Your task to perform on an android device: change the clock display to digital Image 0: 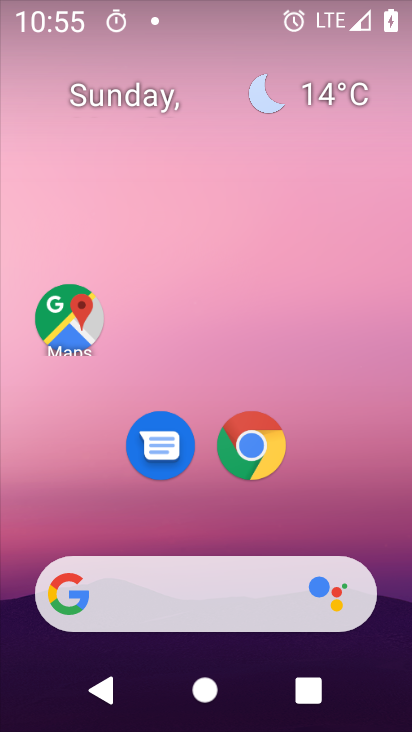
Step 0: drag from (211, 495) to (226, 109)
Your task to perform on an android device: change the clock display to digital Image 1: 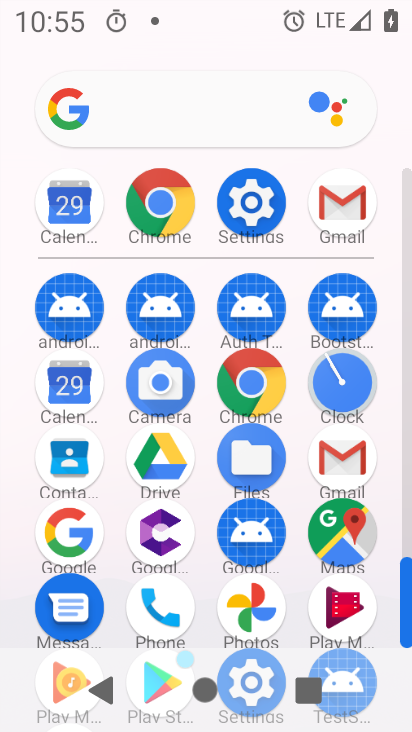
Step 1: click (236, 189)
Your task to perform on an android device: change the clock display to digital Image 2: 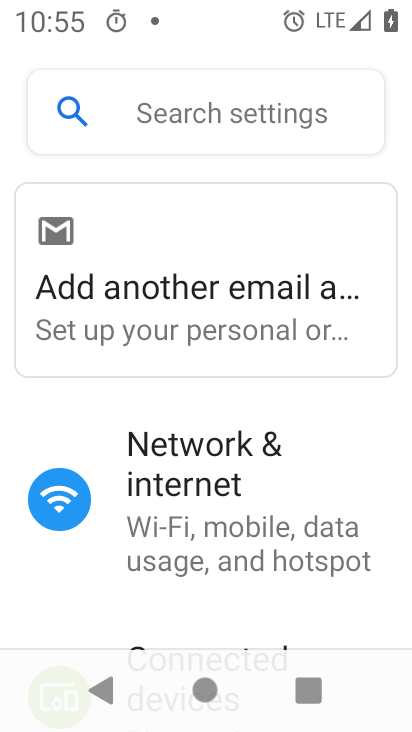
Step 2: drag from (191, 541) to (259, 41)
Your task to perform on an android device: change the clock display to digital Image 3: 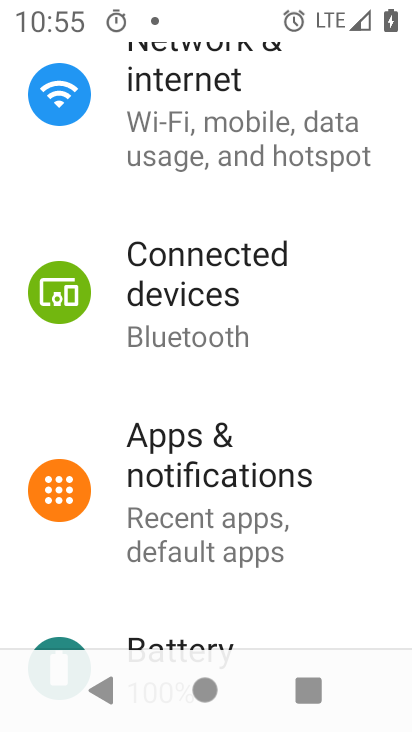
Step 3: drag from (217, 569) to (281, 234)
Your task to perform on an android device: change the clock display to digital Image 4: 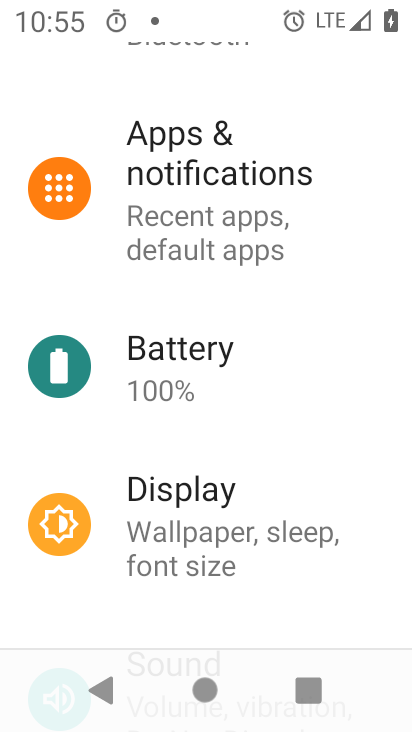
Step 4: press home button
Your task to perform on an android device: change the clock display to digital Image 5: 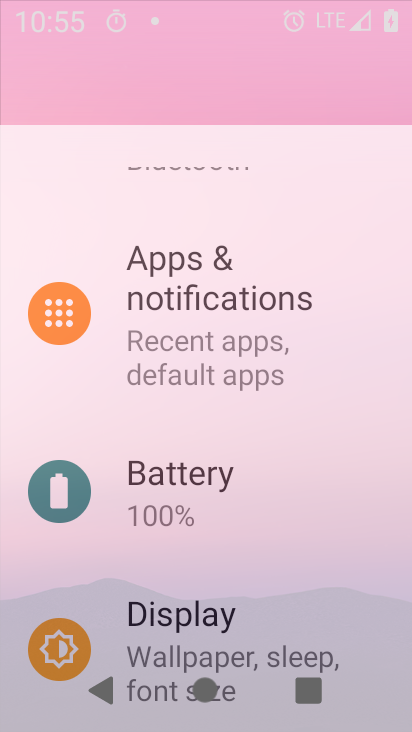
Step 5: drag from (169, 455) to (259, 22)
Your task to perform on an android device: change the clock display to digital Image 6: 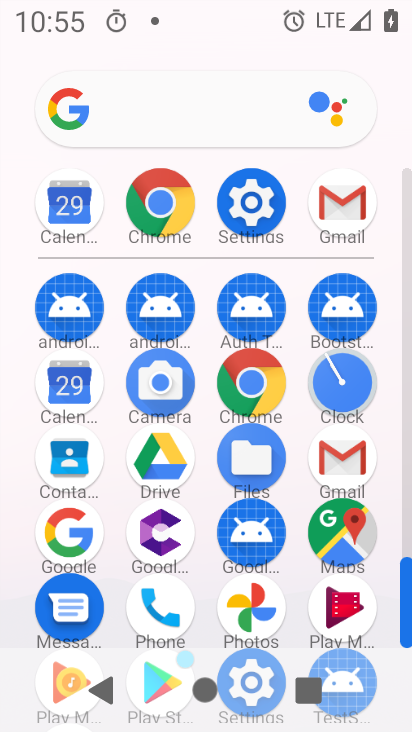
Step 6: click (343, 387)
Your task to perform on an android device: change the clock display to digital Image 7: 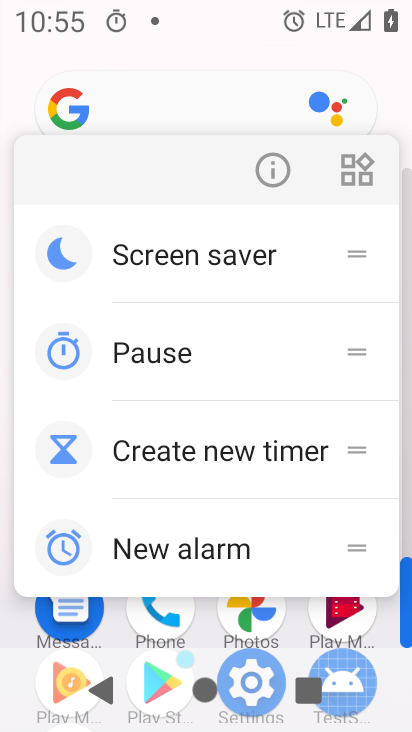
Step 7: click (264, 159)
Your task to perform on an android device: change the clock display to digital Image 8: 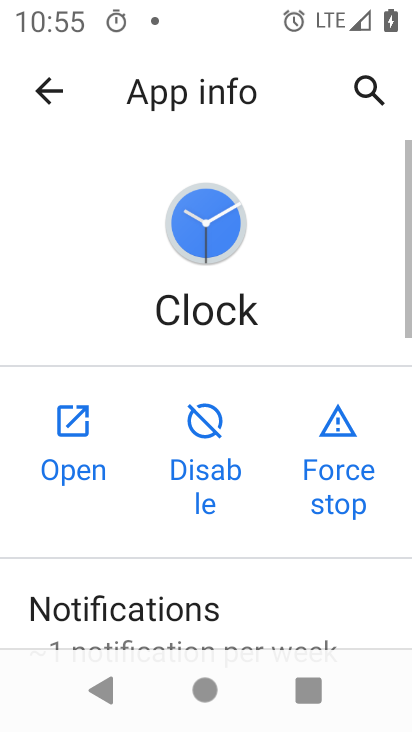
Step 8: click (74, 450)
Your task to perform on an android device: change the clock display to digital Image 9: 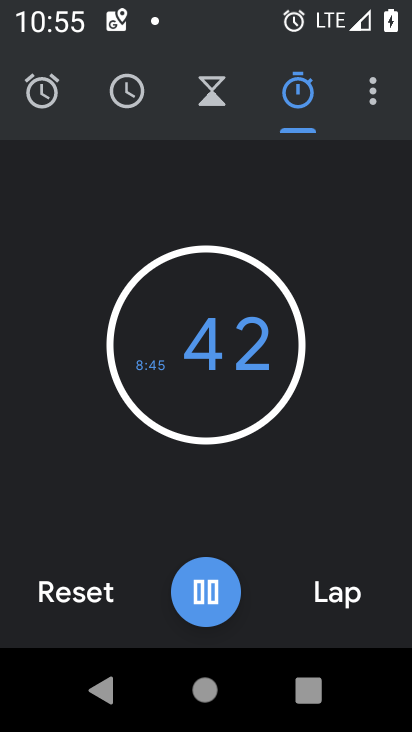
Step 9: click (366, 94)
Your task to perform on an android device: change the clock display to digital Image 10: 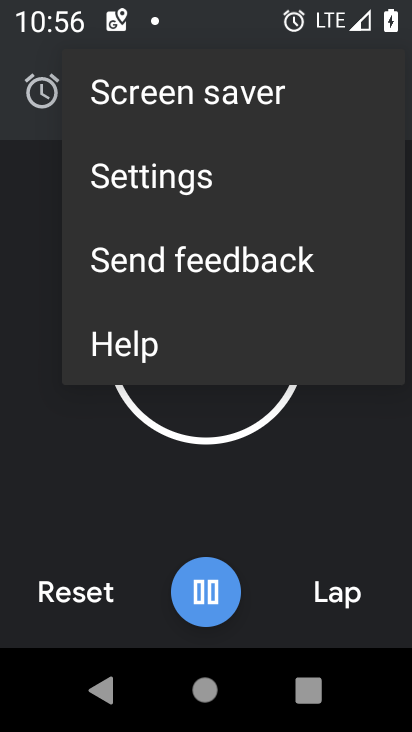
Step 10: click (184, 148)
Your task to perform on an android device: change the clock display to digital Image 11: 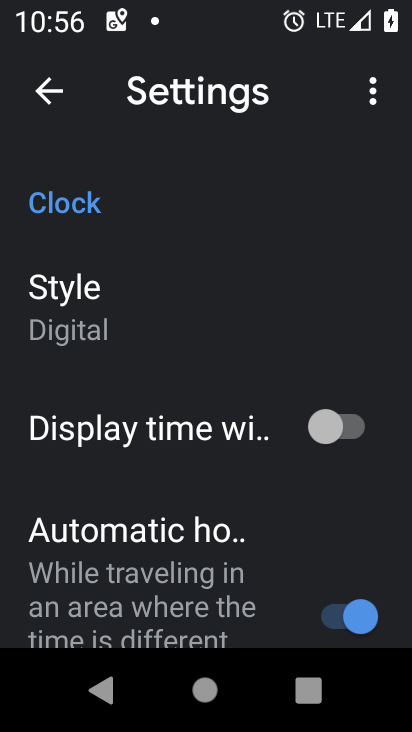
Step 11: drag from (247, 507) to (277, 268)
Your task to perform on an android device: change the clock display to digital Image 12: 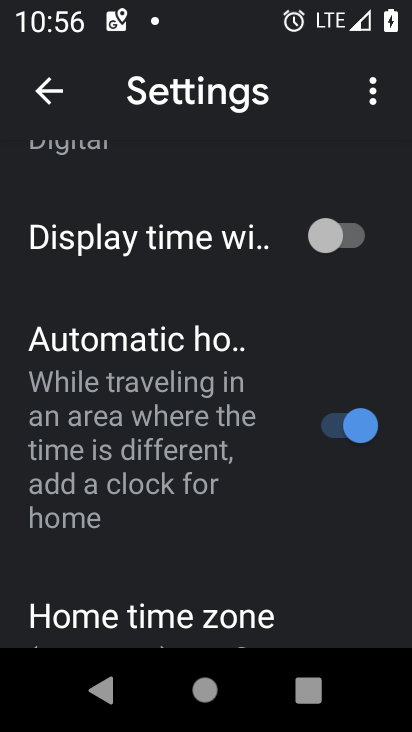
Step 12: drag from (250, 612) to (249, 227)
Your task to perform on an android device: change the clock display to digital Image 13: 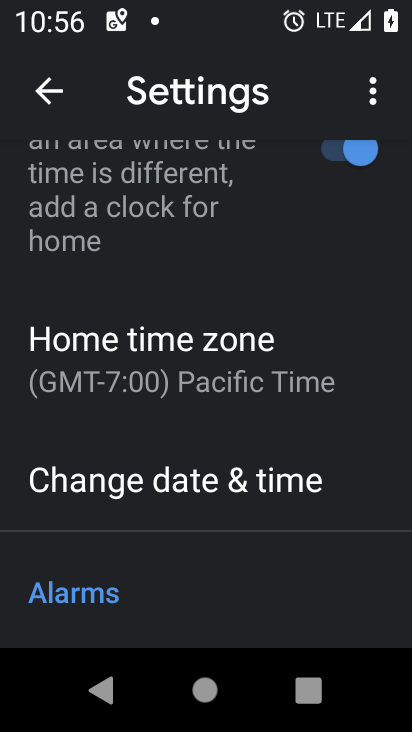
Step 13: drag from (252, 218) to (282, 705)
Your task to perform on an android device: change the clock display to digital Image 14: 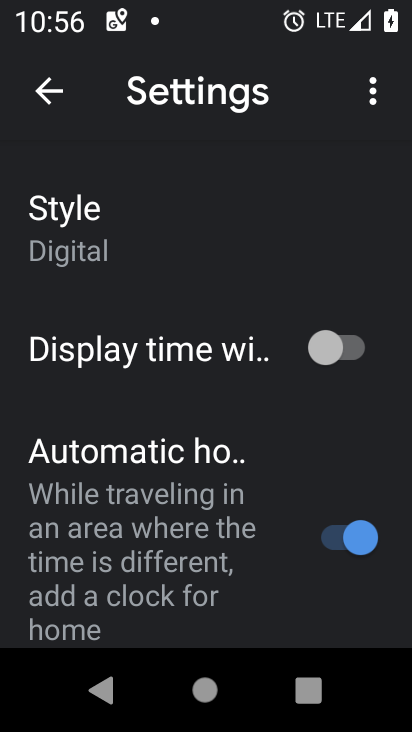
Step 14: click (78, 182)
Your task to perform on an android device: change the clock display to digital Image 15: 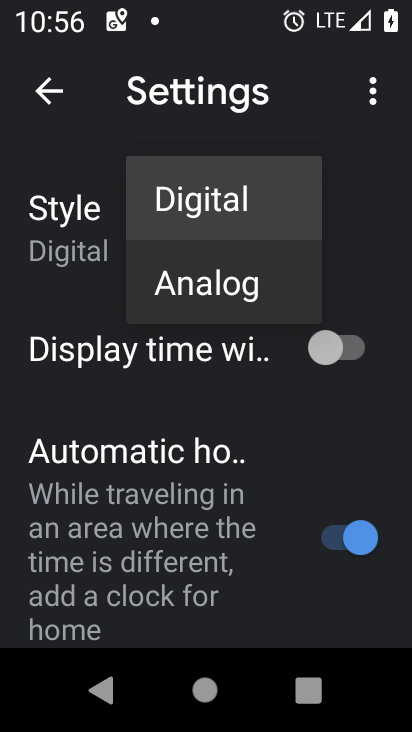
Step 15: task complete